Your task to perform on an android device: allow cookies in the chrome app Image 0: 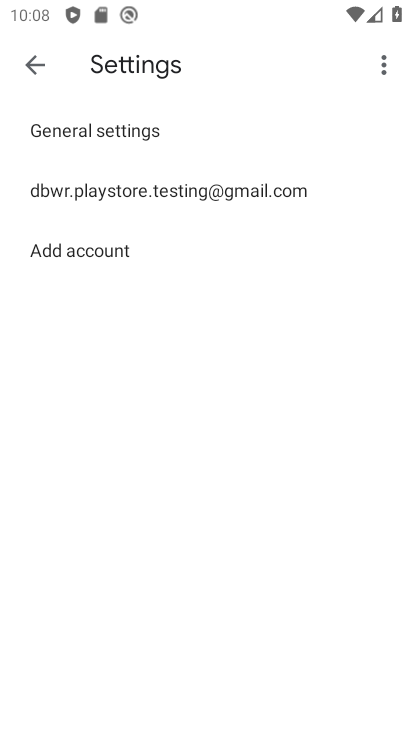
Step 0: press home button
Your task to perform on an android device: allow cookies in the chrome app Image 1: 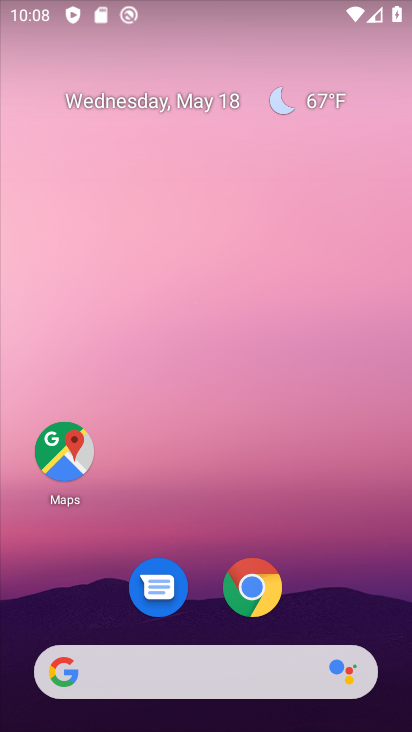
Step 1: click (246, 592)
Your task to perform on an android device: allow cookies in the chrome app Image 2: 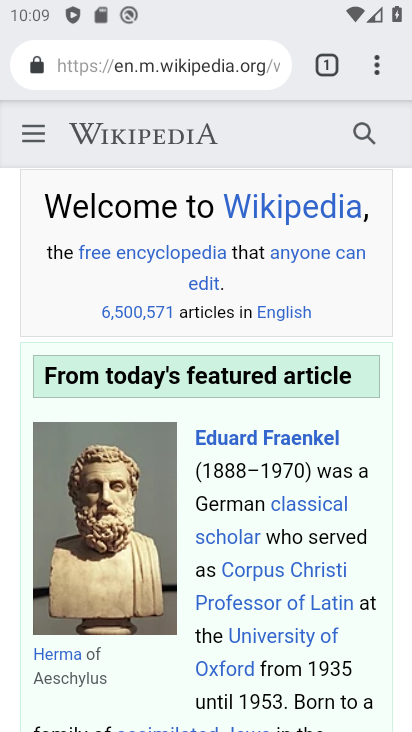
Step 2: click (368, 52)
Your task to perform on an android device: allow cookies in the chrome app Image 3: 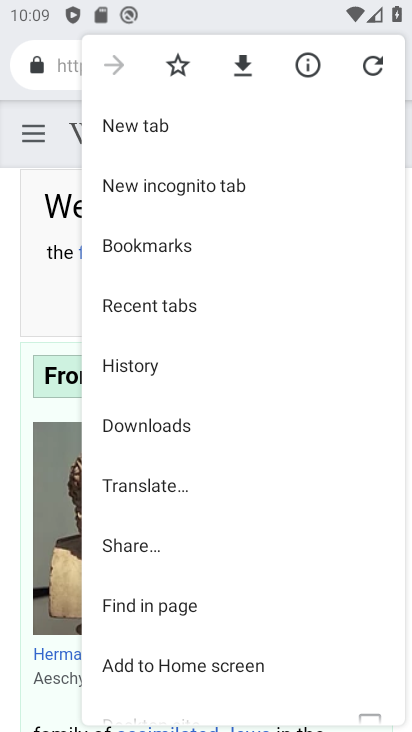
Step 3: drag from (269, 522) to (232, 229)
Your task to perform on an android device: allow cookies in the chrome app Image 4: 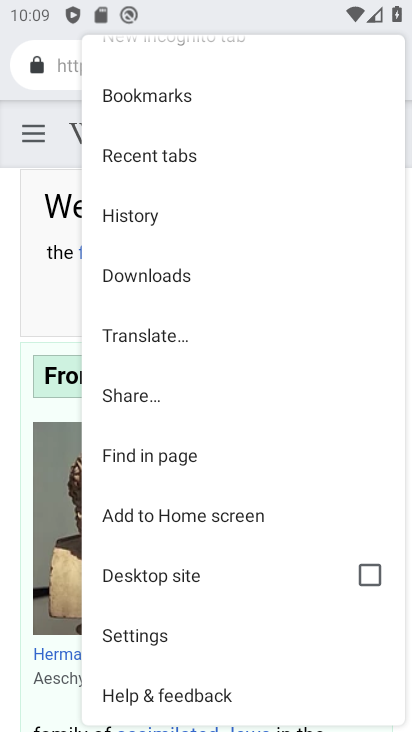
Step 4: click (160, 630)
Your task to perform on an android device: allow cookies in the chrome app Image 5: 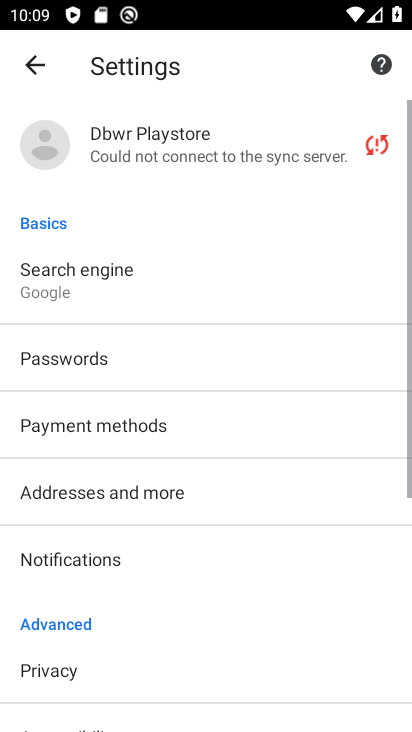
Step 5: drag from (246, 573) to (233, 274)
Your task to perform on an android device: allow cookies in the chrome app Image 6: 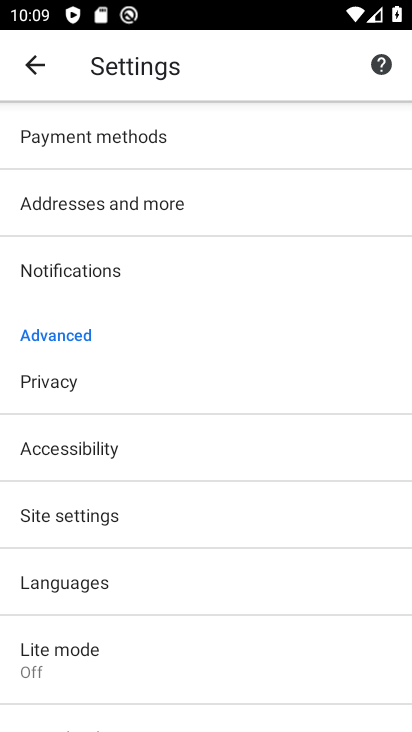
Step 6: drag from (155, 518) to (151, 277)
Your task to perform on an android device: allow cookies in the chrome app Image 7: 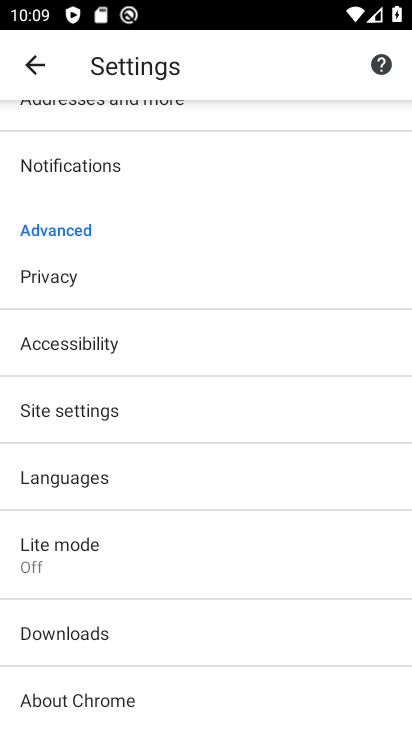
Step 7: click (90, 408)
Your task to perform on an android device: allow cookies in the chrome app Image 8: 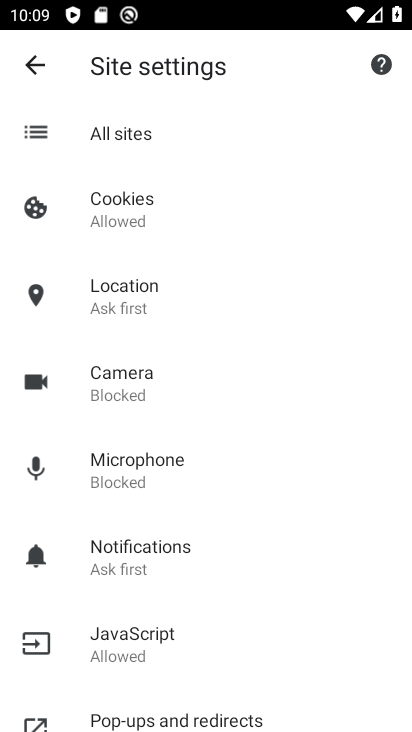
Step 8: click (115, 206)
Your task to perform on an android device: allow cookies in the chrome app Image 9: 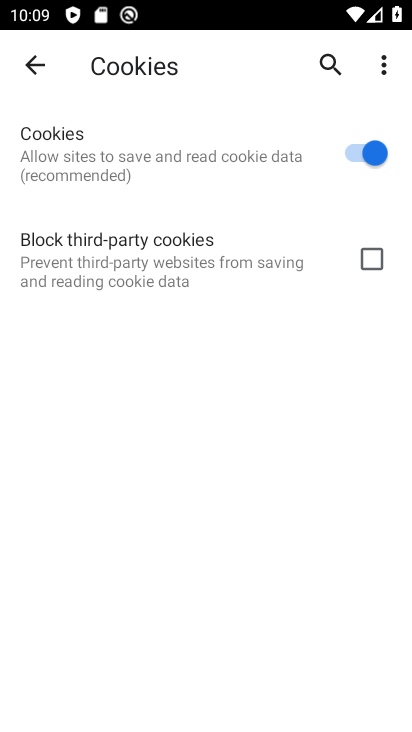
Step 9: task complete